Your task to perform on an android device: open chrome privacy settings Image 0: 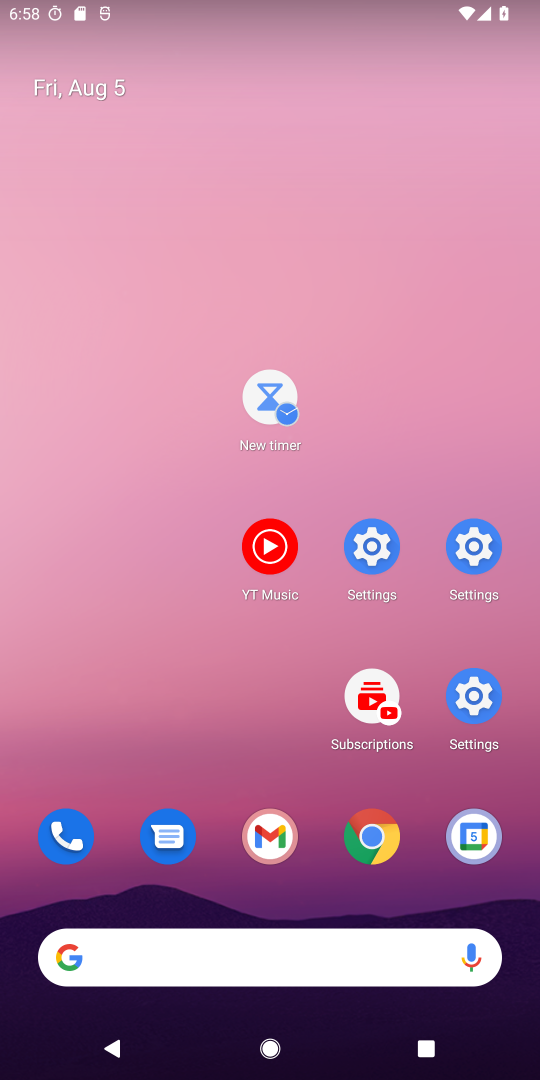
Step 0: drag from (347, 683) to (272, 237)
Your task to perform on an android device: open chrome privacy settings Image 1: 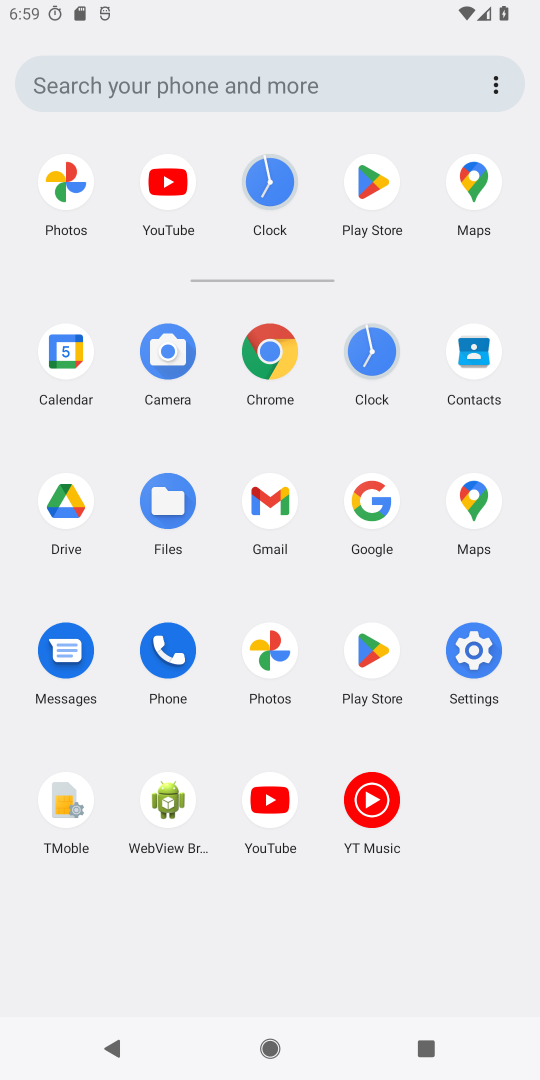
Step 1: click (478, 640)
Your task to perform on an android device: open chrome privacy settings Image 2: 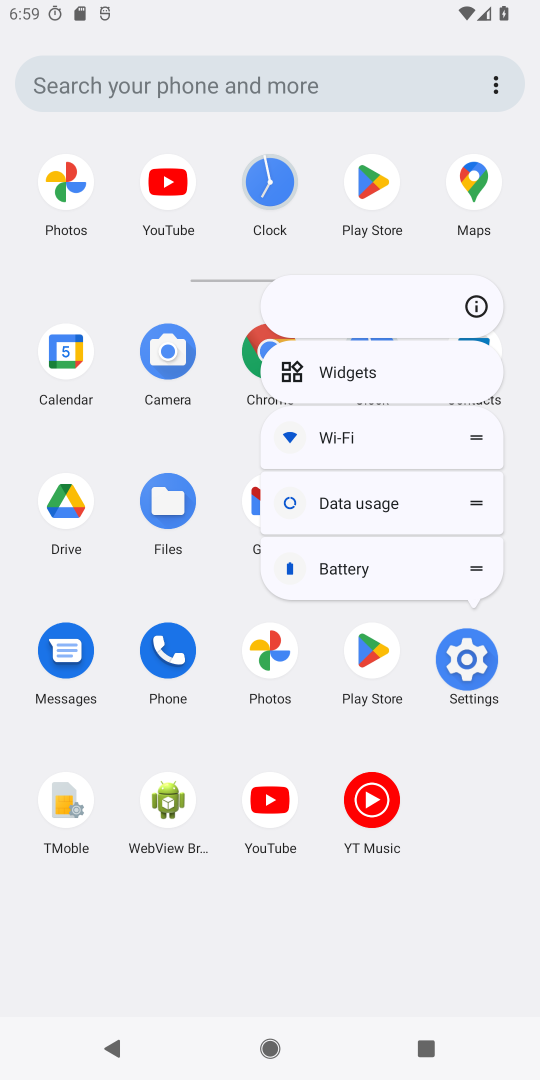
Step 2: click (469, 650)
Your task to perform on an android device: open chrome privacy settings Image 3: 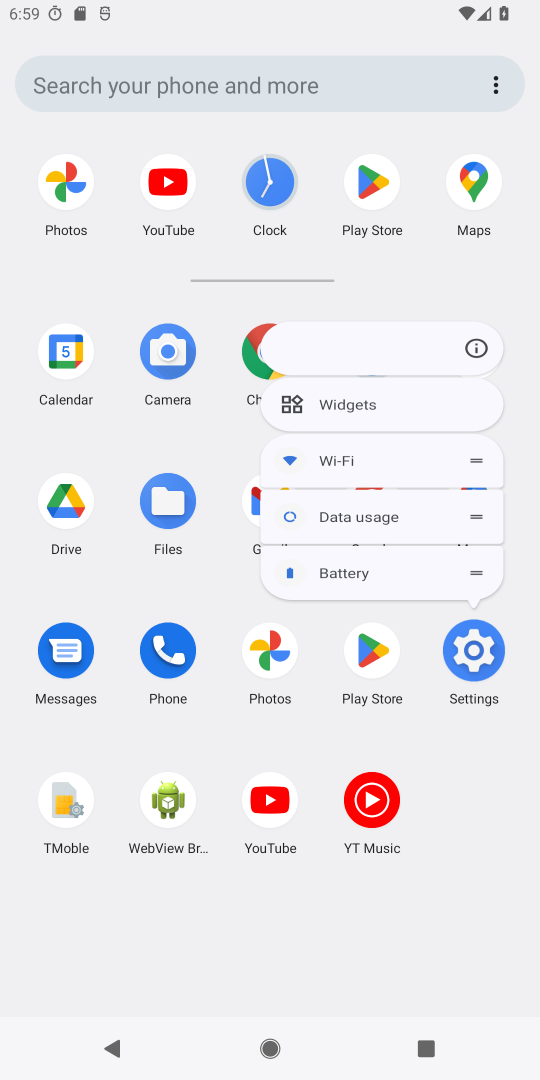
Step 3: click (469, 650)
Your task to perform on an android device: open chrome privacy settings Image 4: 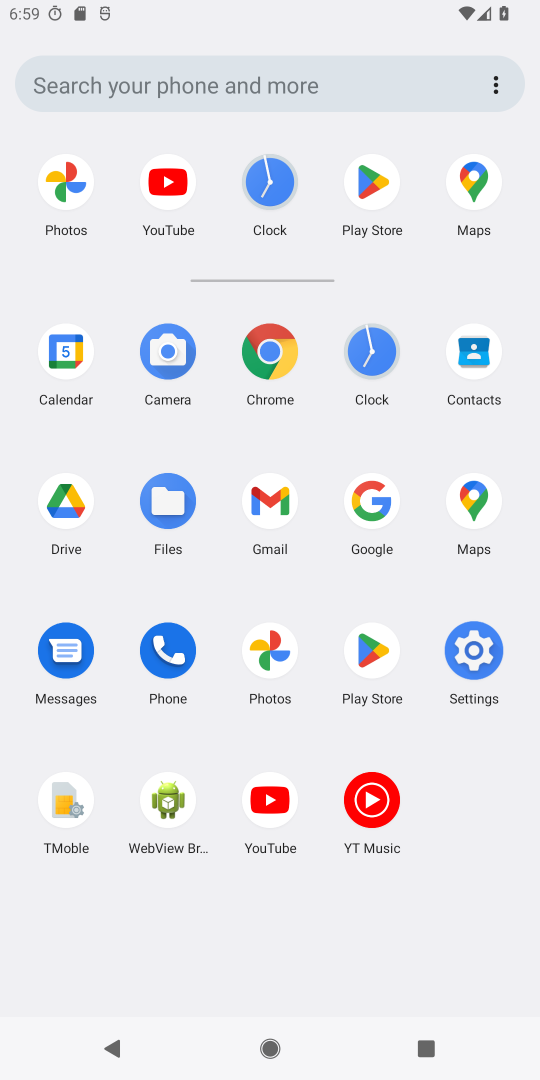
Step 4: click (467, 652)
Your task to perform on an android device: open chrome privacy settings Image 5: 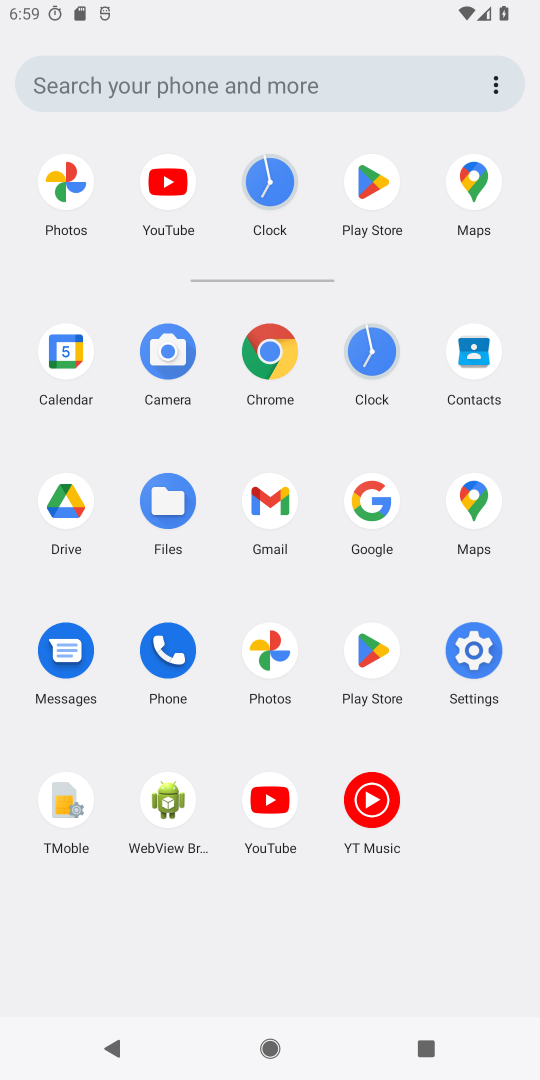
Step 5: click (476, 674)
Your task to perform on an android device: open chrome privacy settings Image 6: 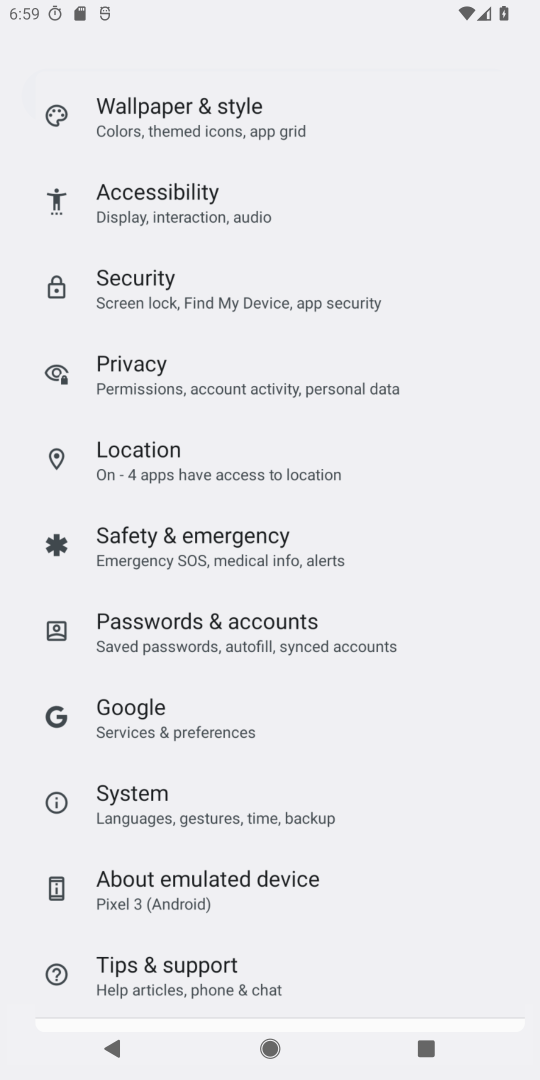
Step 6: click (476, 674)
Your task to perform on an android device: open chrome privacy settings Image 7: 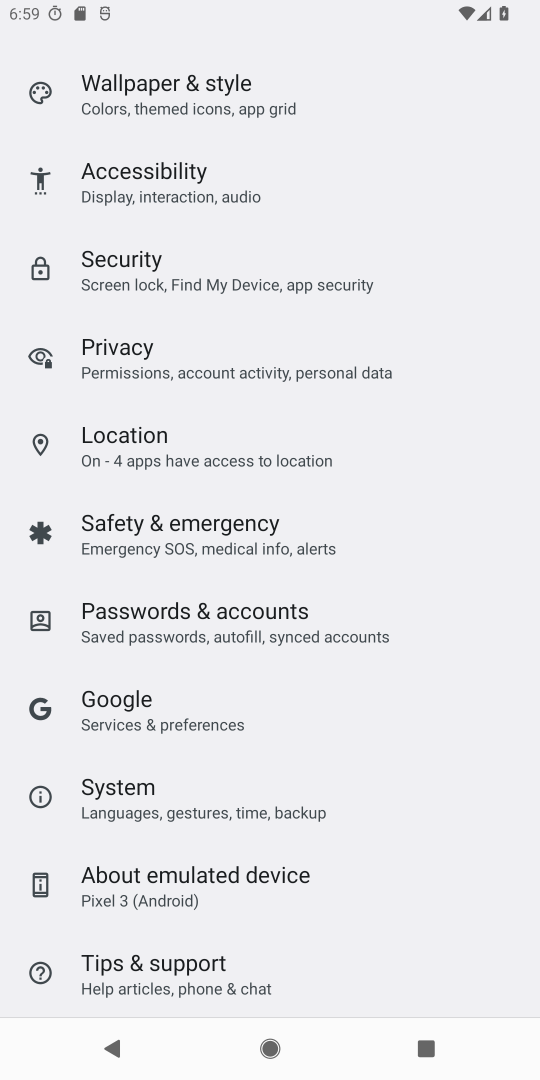
Step 7: click (476, 673)
Your task to perform on an android device: open chrome privacy settings Image 8: 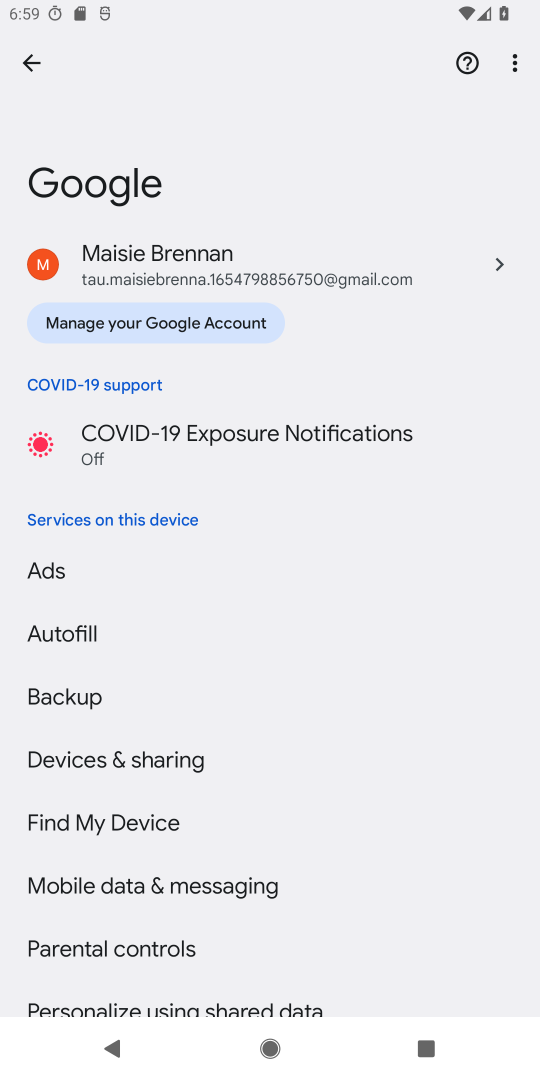
Step 8: click (332, 674)
Your task to perform on an android device: open chrome privacy settings Image 9: 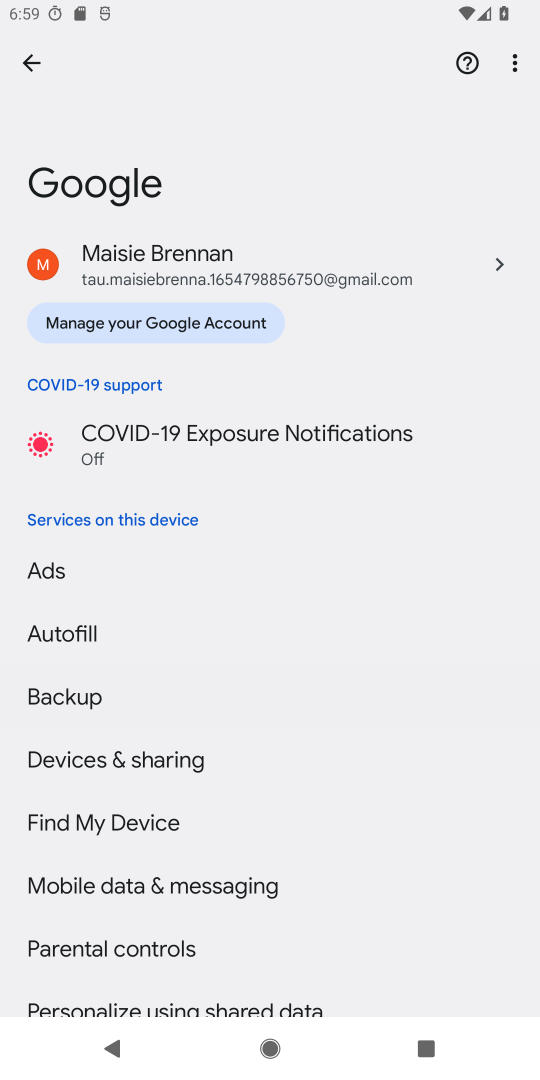
Step 9: click (16, 60)
Your task to perform on an android device: open chrome privacy settings Image 10: 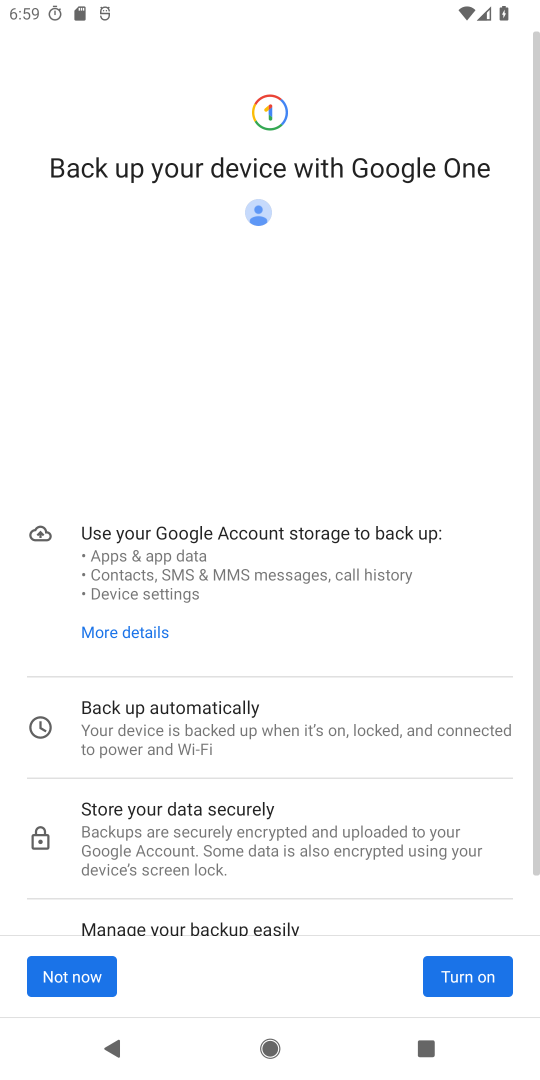
Step 10: click (22, 60)
Your task to perform on an android device: open chrome privacy settings Image 11: 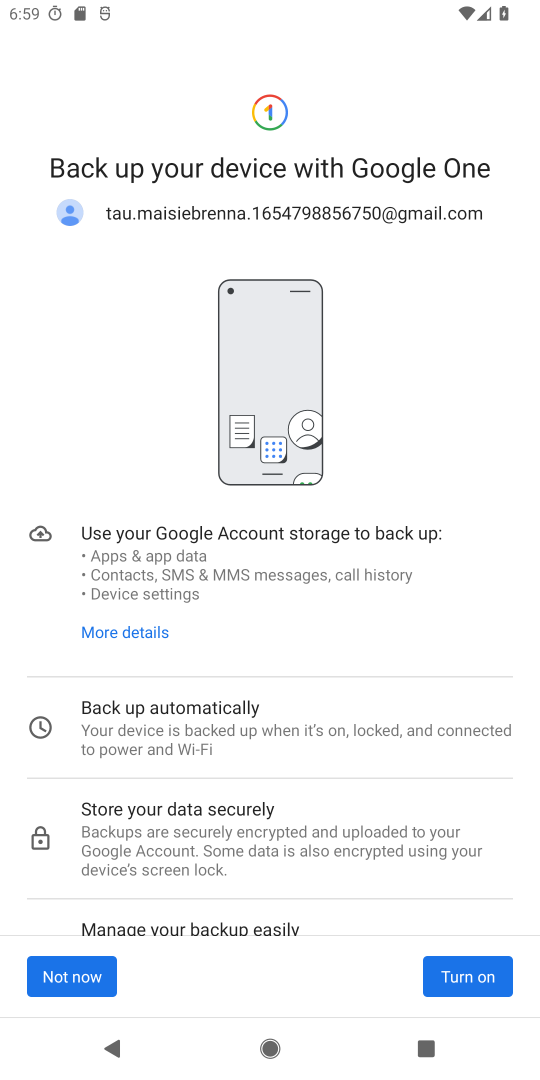
Step 11: press back button
Your task to perform on an android device: open chrome privacy settings Image 12: 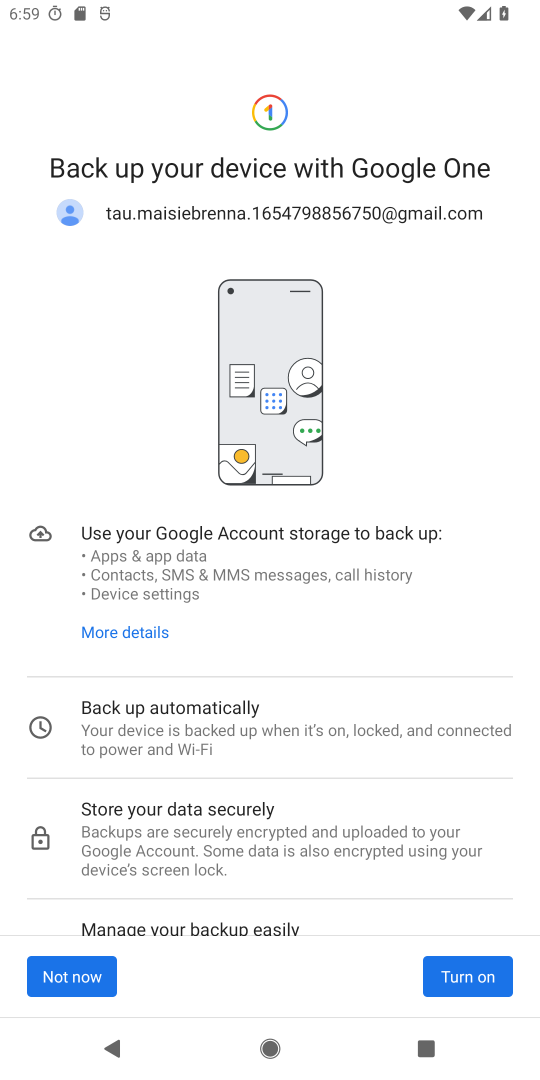
Step 12: press back button
Your task to perform on an android device: open chrome privacy settings Image 13: 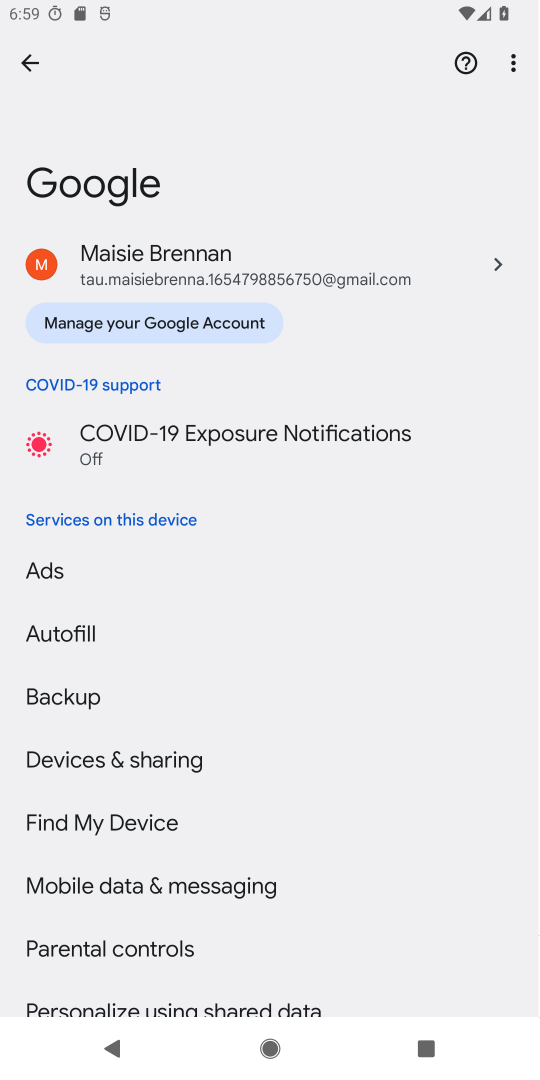
Step 13: press back button
Your task to perform on an android device: open chrome privacy settings Image 14: 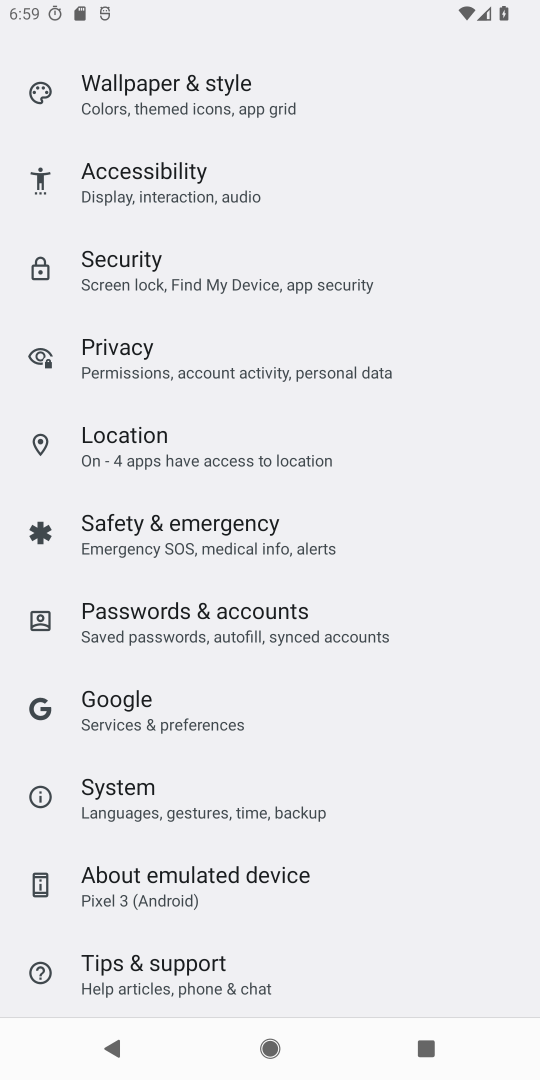
Step 14: press back button
Your task to perform on an android device: open chrome privacy settings Image 15: 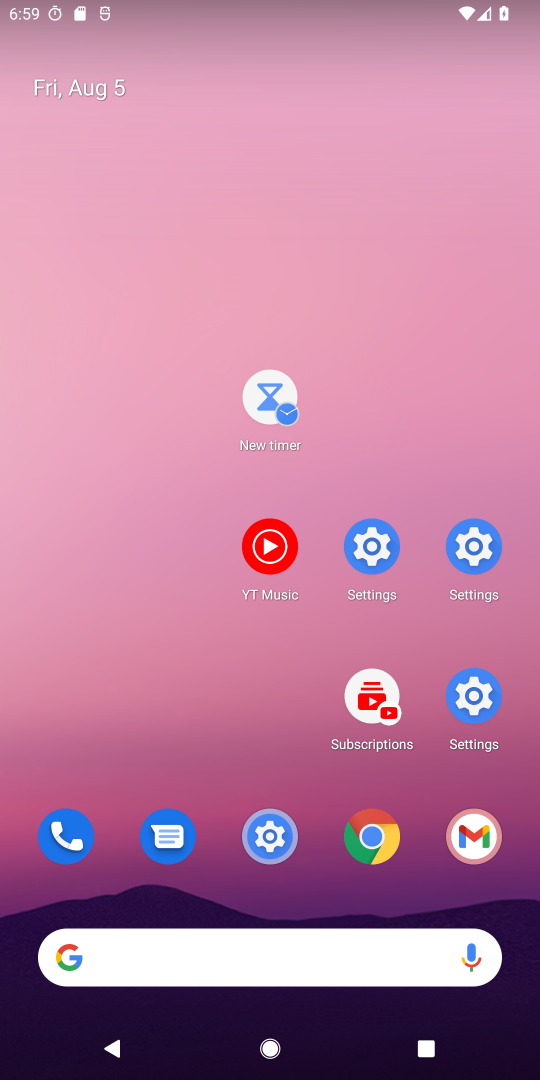
Step 15: drag from (343, 672) to (262, 251)
Your task to perform on an android device: open chrome privacy settings Image 16: 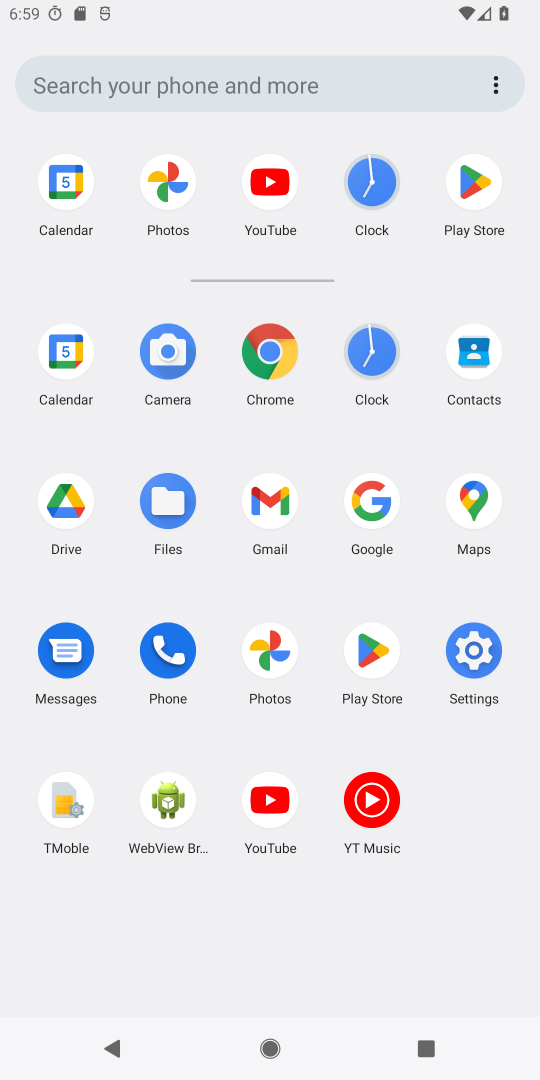
Step 16: click (462, 633)
Your task to perform on an android device: open chrome privacy settings Image 17: 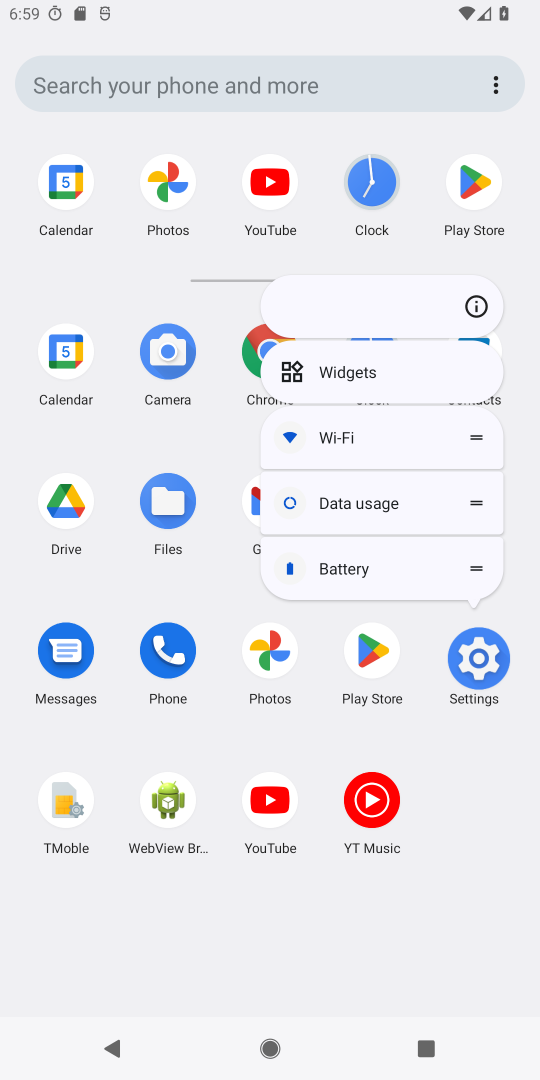
Step 17: click (467, 641)
Your task to perform on an android device: open chrome privacy settings Image 18: 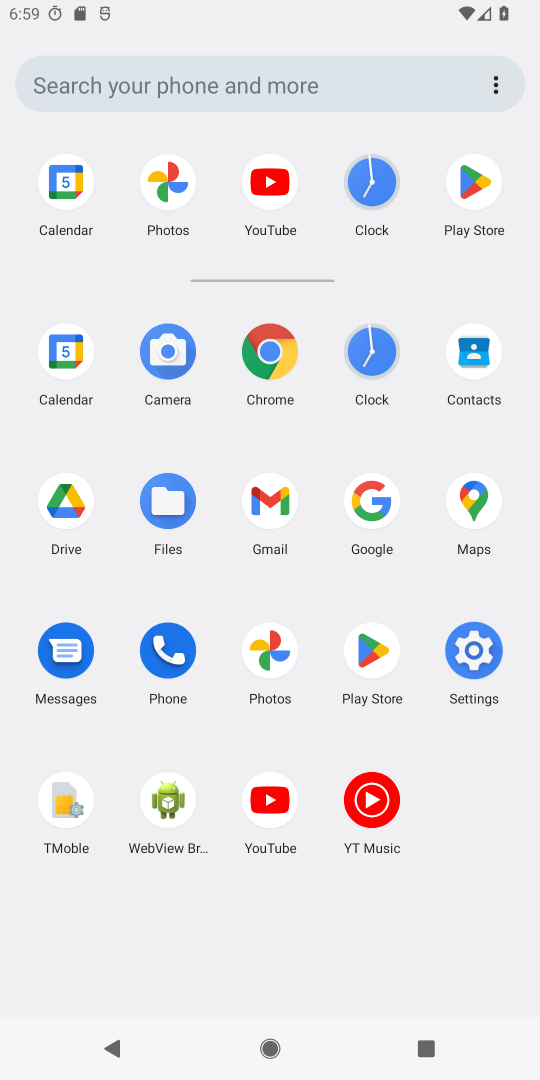
Step 18: click (470, 650)
Your task to perform on an android device: open chrome privacy settings Image 19: 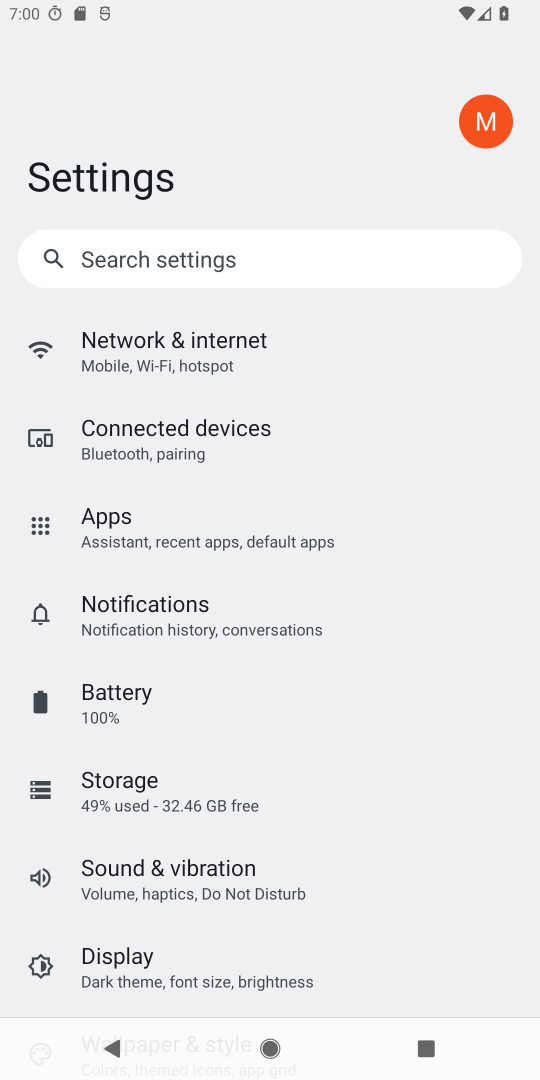
Step 19: drag from (214, 893) to (128, 424)
Your task to perform on an android device: open chrome privacy settings Image 20: 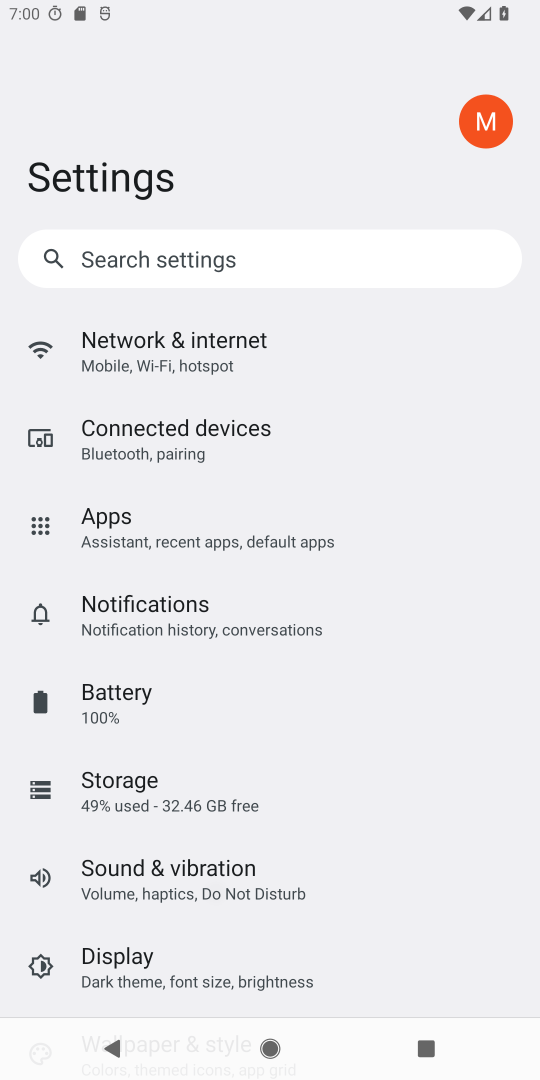
Step 20: drag from (241, 881) to (200, 259)
Your task to perform on an android device: open chrome privacy settings Image 21: 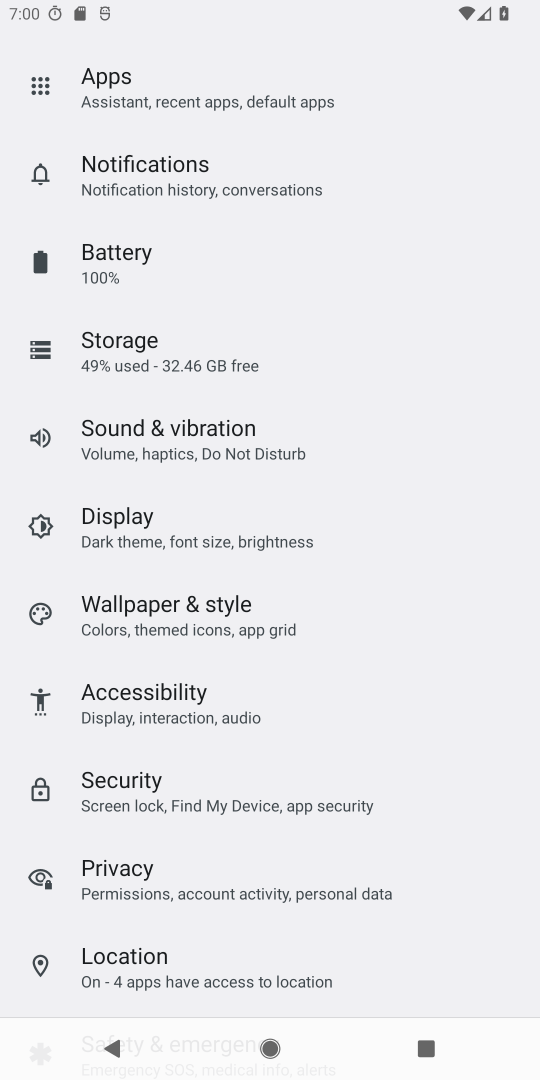
Step 21: click (110, 856)
Your task to perform on an android device: open chrome privacy settings Image 22: 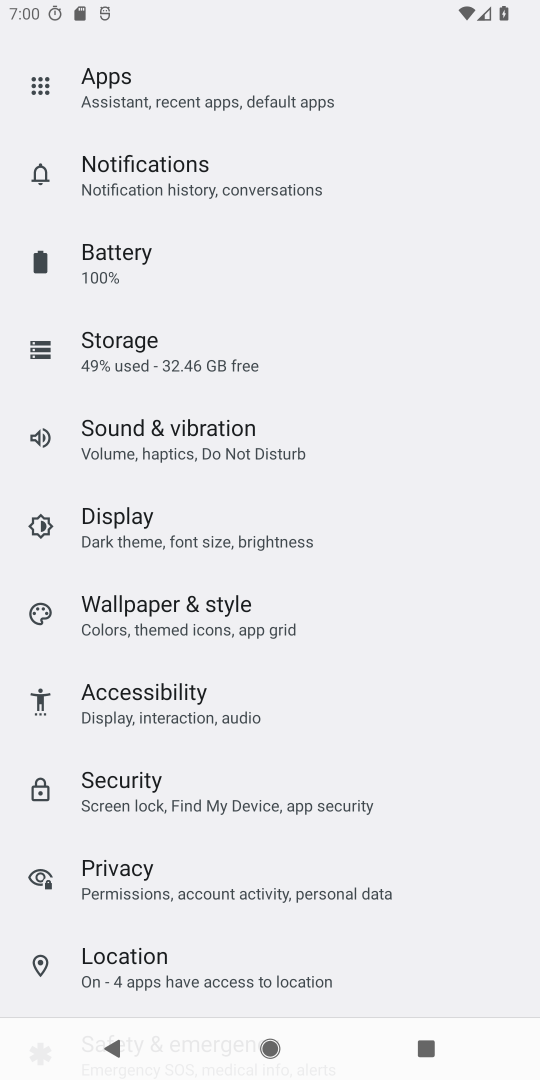
Step 22: drag from (107, 866) to (160, 887)
Your task to perform on an android device: open chrome privacy settings Image 23: 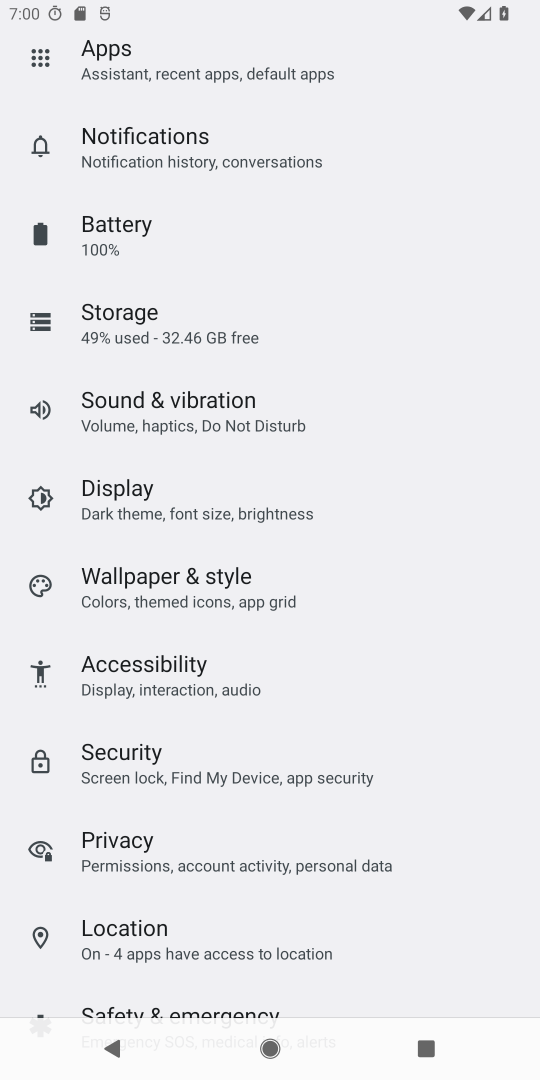
Step 23: click (160, 887)
Your task to perform on an android device: open chrome privacy settings Image 24: 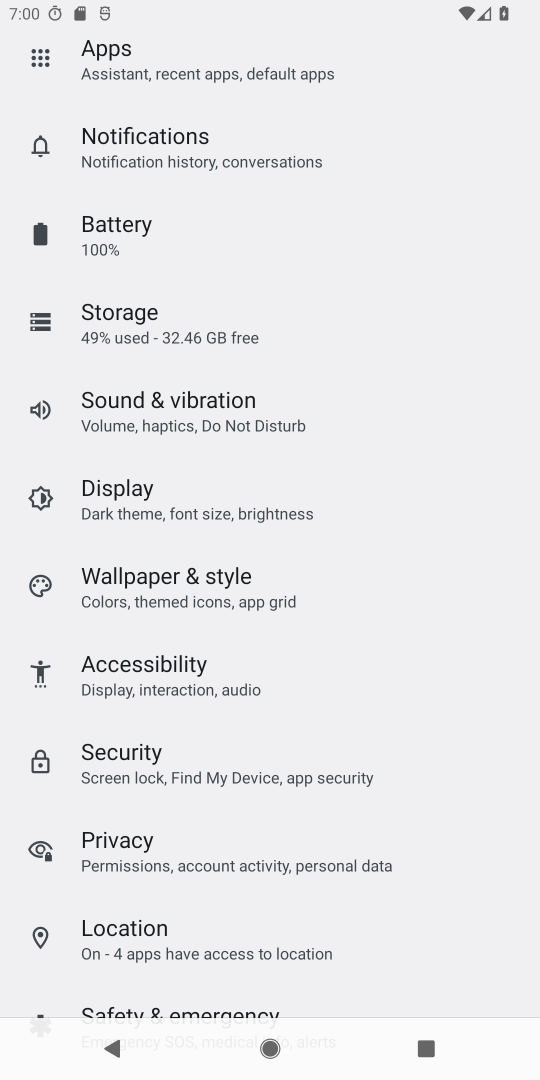
Step 24: click (160, 887)
Your task to perform on an android device: open chrome privacy settings Image 25: 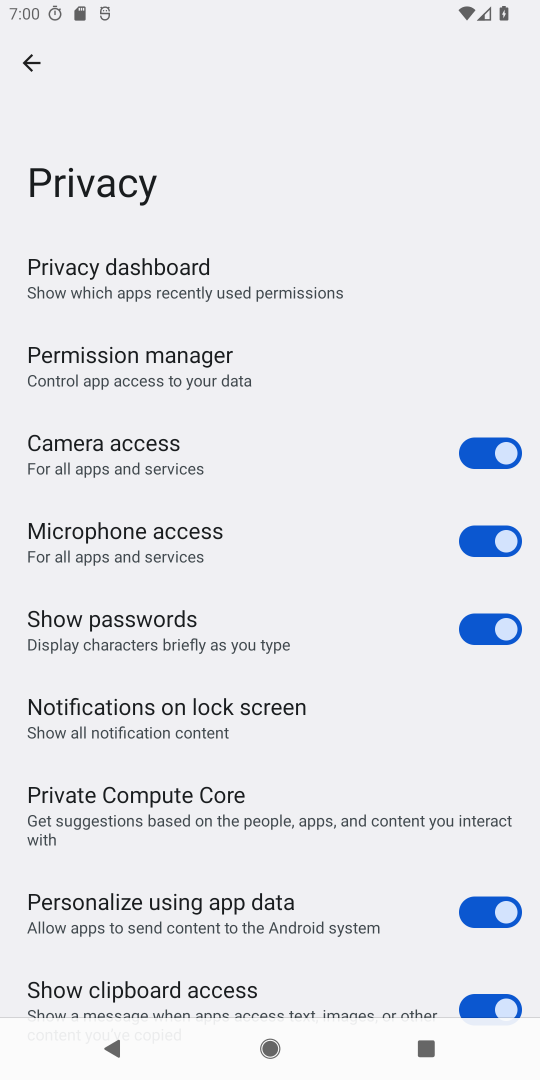
Step 25: task complete